Your task to perform on an android device: Toggle the flashlight Image 0: 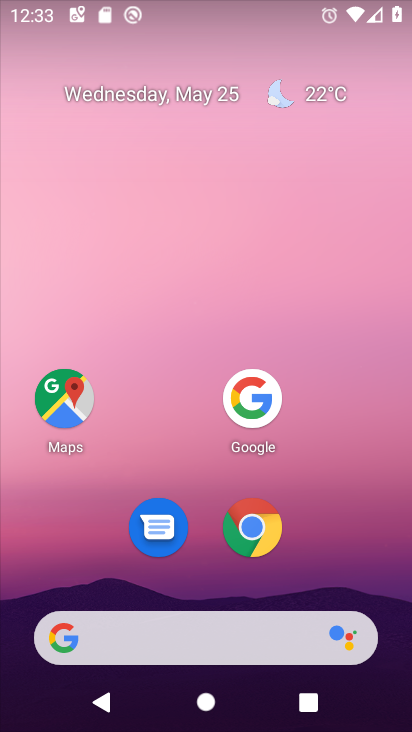
Step 0: press home button
Your task to perform on an android device: Toggle the flashlight Image 1: 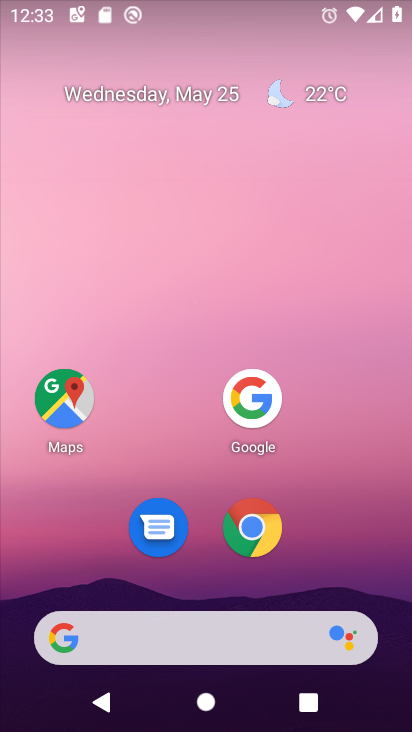
Step 1: task complete